Your task to perform on an android device: Open Google Maps and go to "Timeline" Image 0: 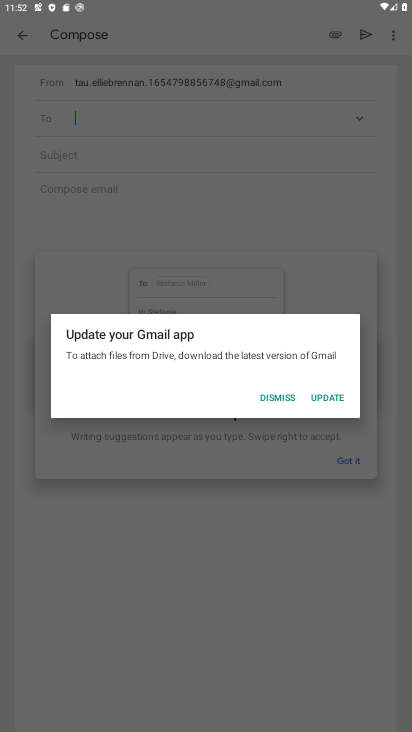
Step 0: press home button
Your task to perform on an android device: Open Google Maps and go to "Timeline" Image 1: 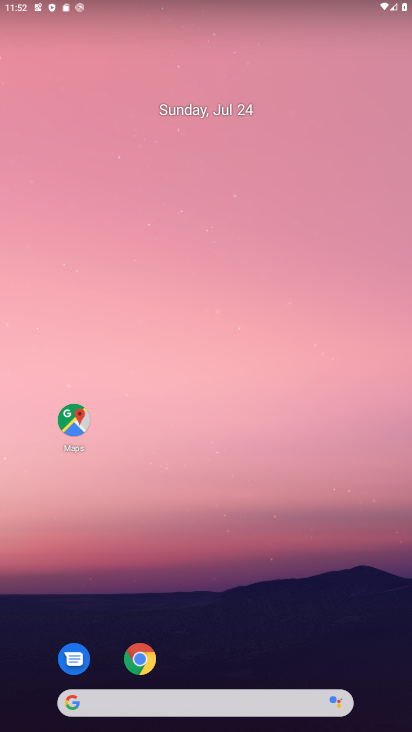
Step 1: click (69, 418)
Your task to perform on an android device: Open Google Maps and go to "Timeline" Image 2: 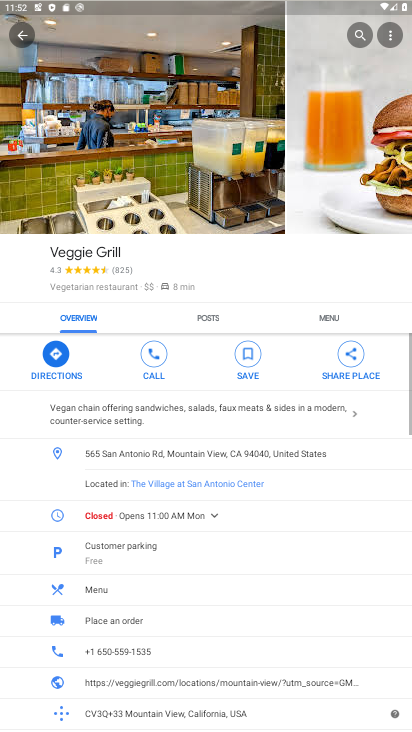
Step 2: click (13, 24)
Your task to perform on an android device: Open Google Maps and go to "Timeline" Image 3: 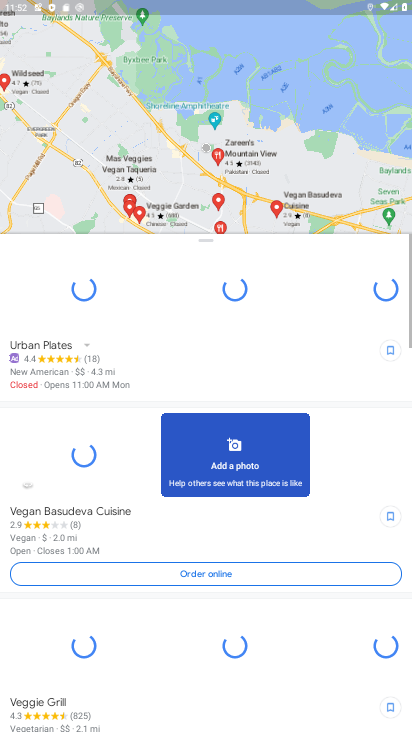
Step 3: click (22, 44)
Your task to perform on an android device: Open Google Maps and go to "Timeline" Image 4: 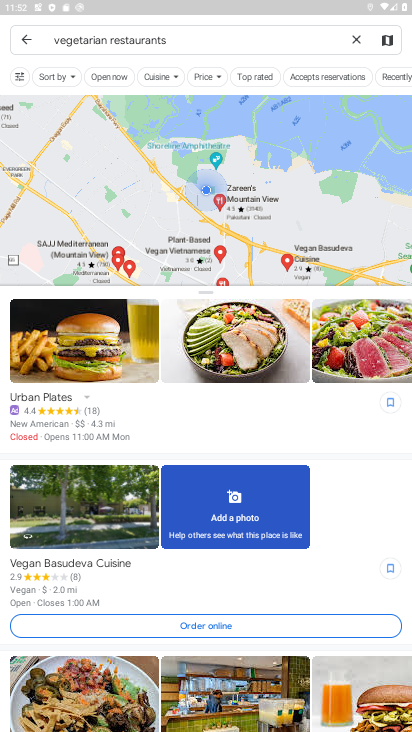
Step 4: click (27, 36)
Your task to perform on an android device: Open Google Maps and go to "Timeline" Image 5: 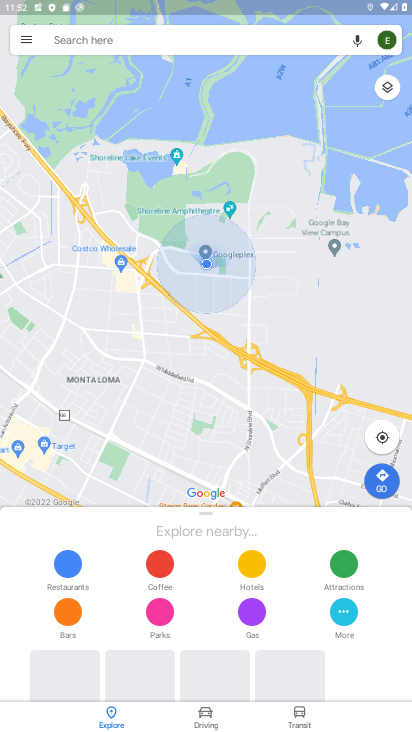
Step 5: click (28, 43)
Your task to perform on an android device: Open Google Maps and go to "Timeline" Image 6: 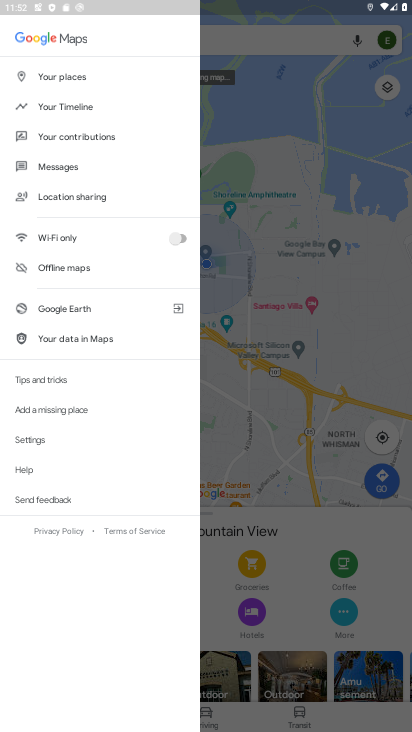
Step 6: click (62, 109)
Your task to perform on an android device: Open Google Maps and go to "Timeline" Image 7: 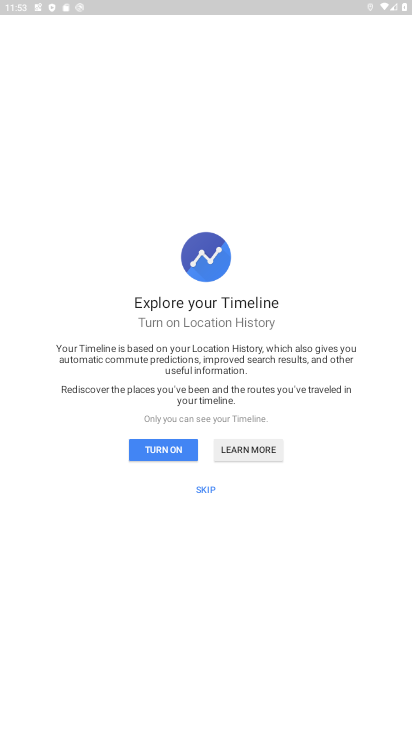
Step 7: click (206, 488)
Your task to perform on an android device: Open Google Maps and go to "Timeline" Image 8: 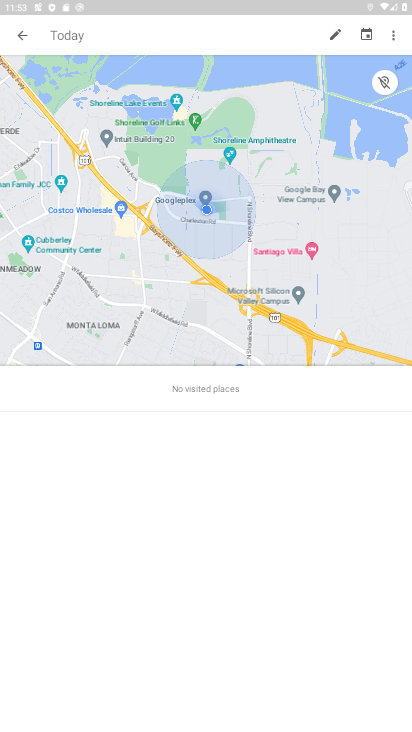
Step 8: task complete